Your task to perform on an android device: Open Google Chrome and open the bookmarks view Image 0: 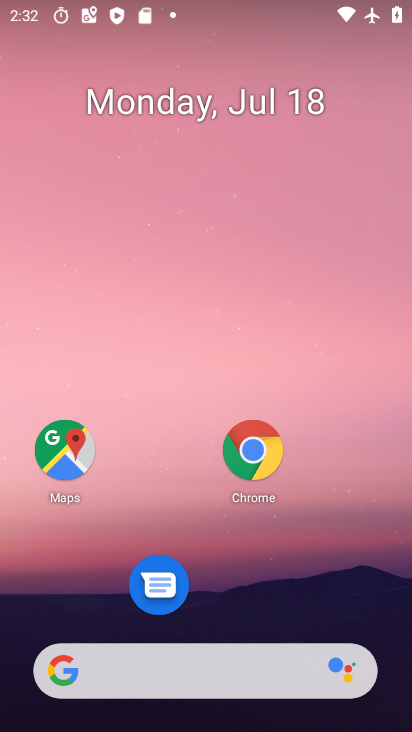
Step 0: press home button
Your task to perform on an android device: Open Google Chrome and open the bookmarks view Image 1: 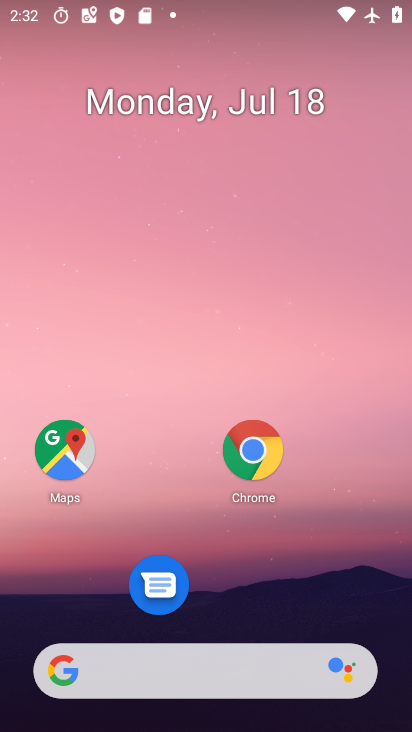
Step 1: click (261, 457)
Your task to perform on an android device: Open Google Chrome and open the bookmarks view Image 2: 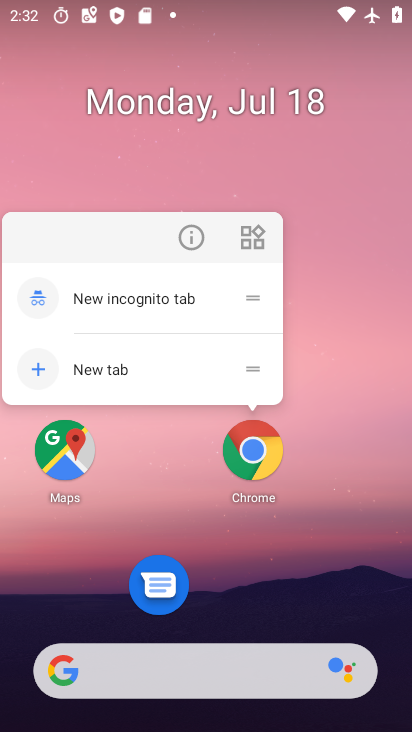
Step 2: click (261, 457)
Your task to perform on an android device: Open Google Chrome and open the bookmarks view Image 3: 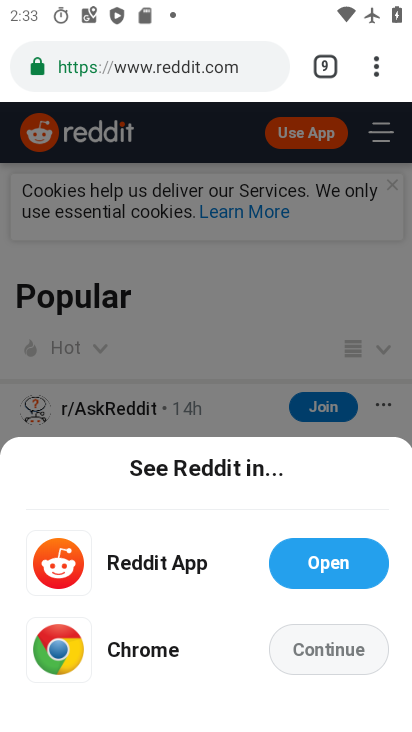
Step 3: task complete